Your task to perform on an android device: What's the price of the Samsung TV? Image 0: 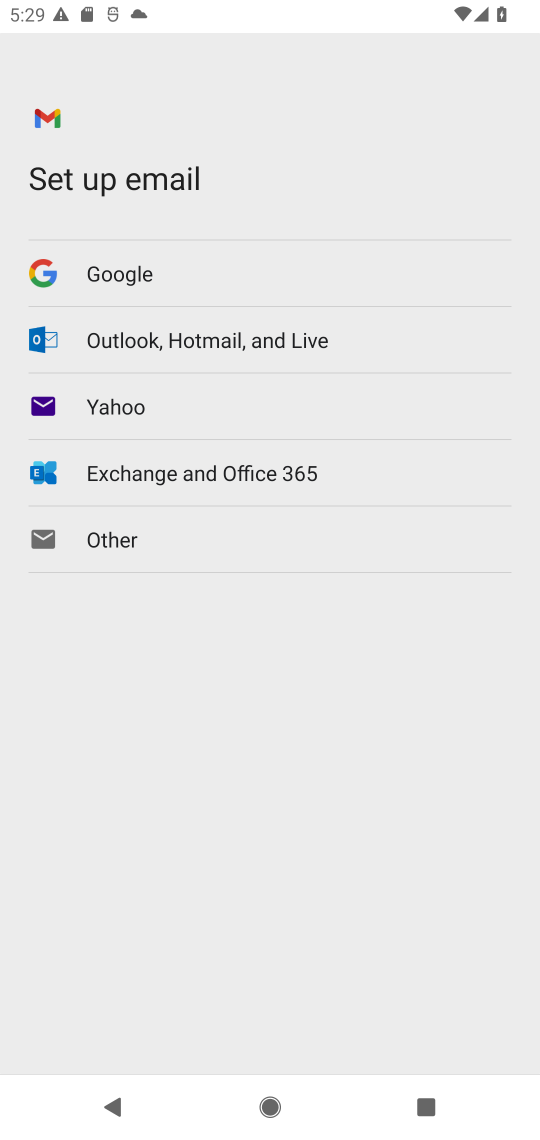
Step 0: press home button
Your task to perform on an android device: What's the price of the Samsung TV? Image 1: 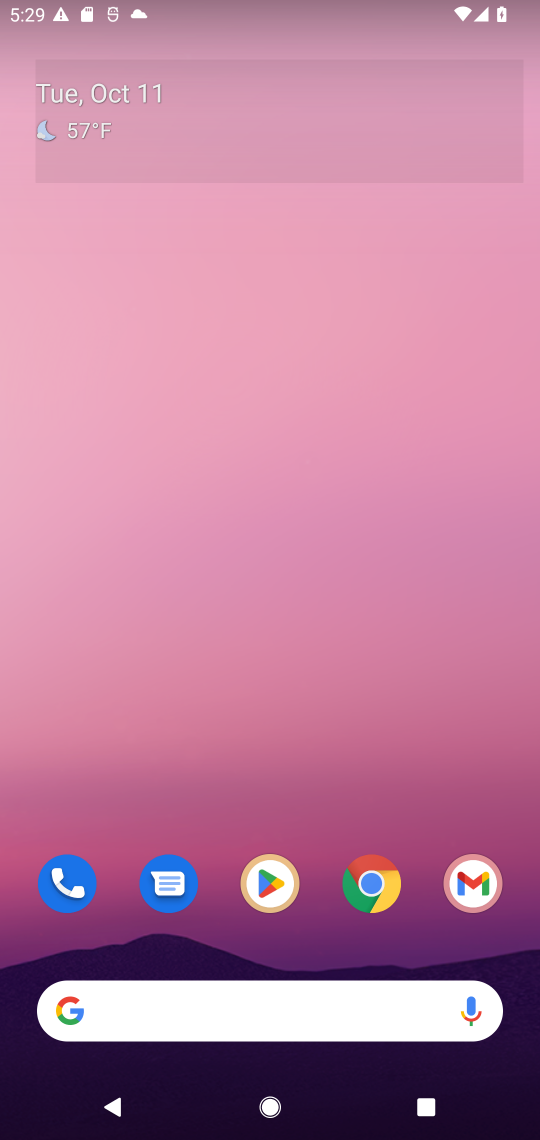
Step 1: drag from (326, 940) to (378, 34)
Your task to perform on an android device: What's the price of the Samsung TV? Image 2: 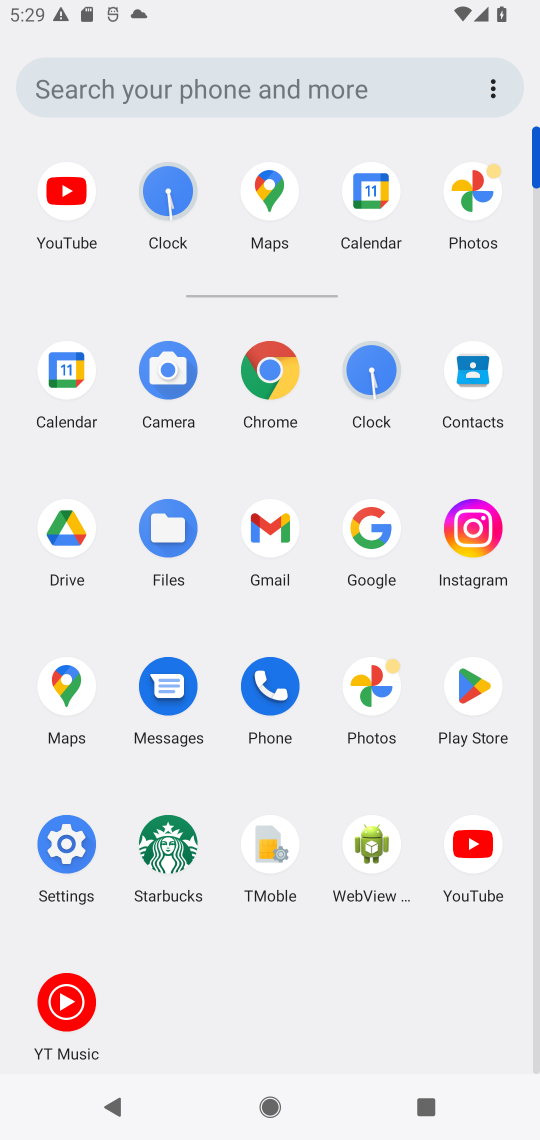
Step 2: click (256, 372)
Your task to perform on an android device: What's the price of the Samsung TV? Image 3: 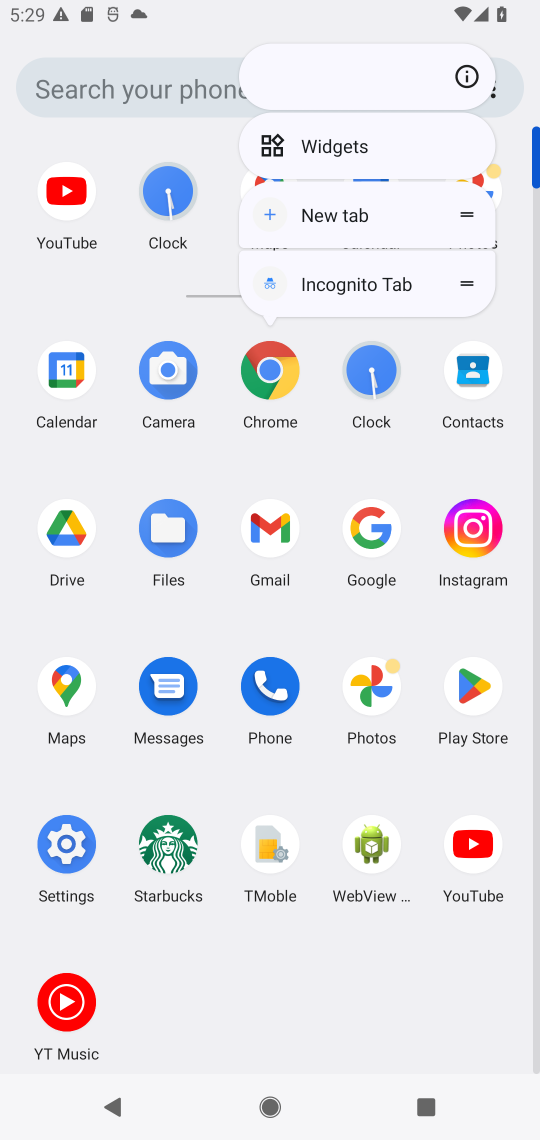
Step 3: click (275, 382)
Your task to perform on an android device: What's the price of the Samsung TV? Image 4: 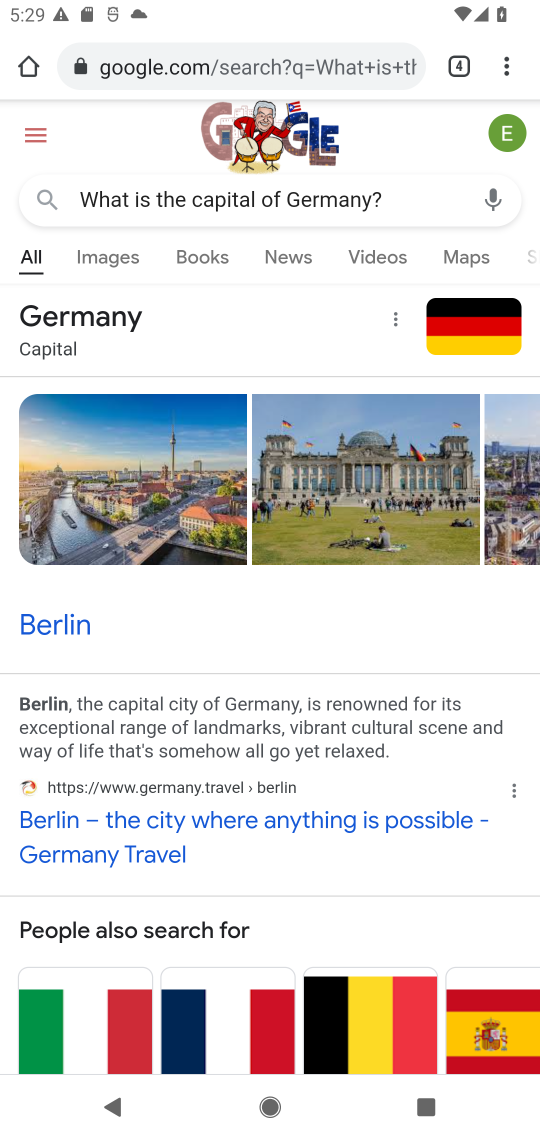
Step 4: click (366, 193)
Your task to perform on an android device: What's the price of the Samsung TV? Image 5: 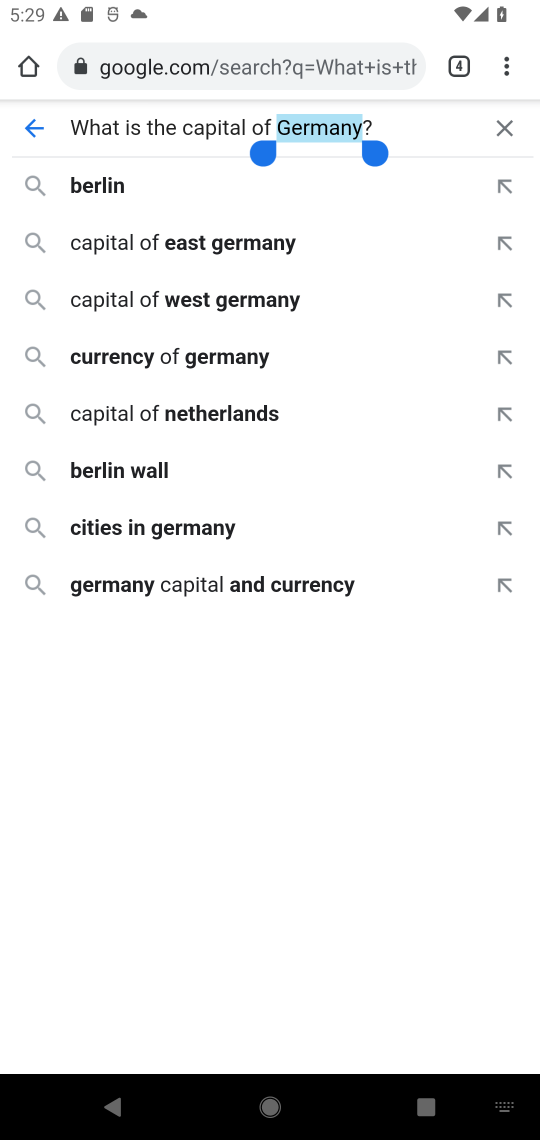
Step 5: click (511, 172)
Your task to perform on an android device: What's the price of the Samsung TV? Image 6: 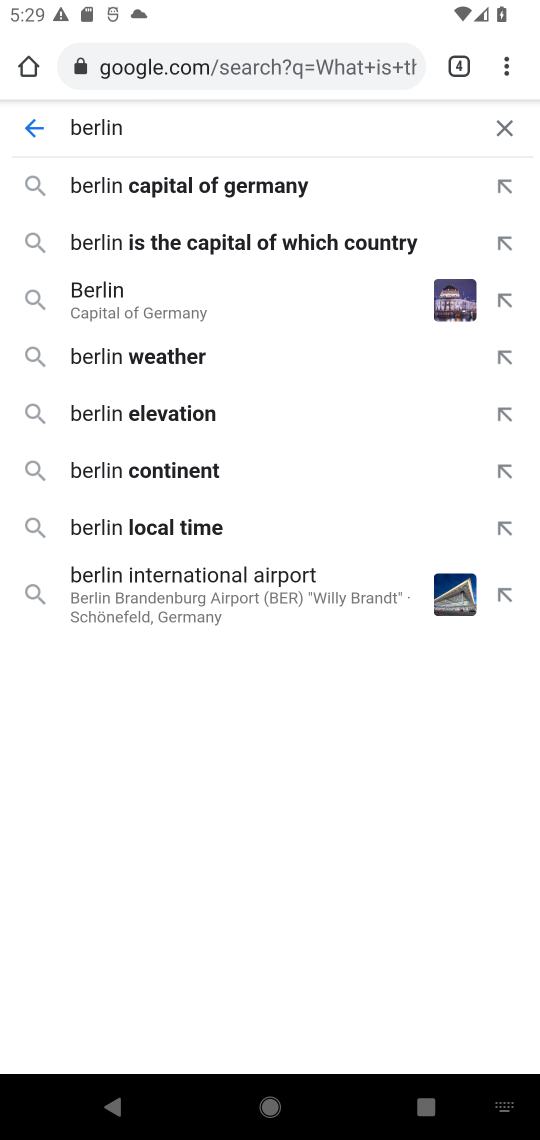
Step 6: click (510, 127)
Your task to perform on an android device: What's the price of the Samsung TV? Image 7: 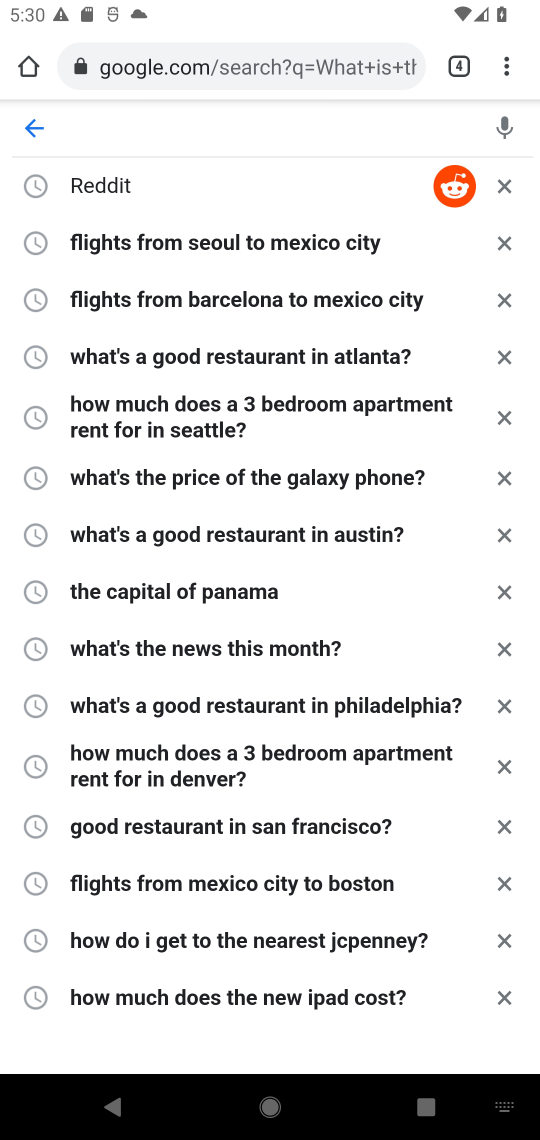
Step 7: type "What's the price of the Samsung TV?"
Your task to perform on an android device: What's the price of the Samsung TV? Image 8: 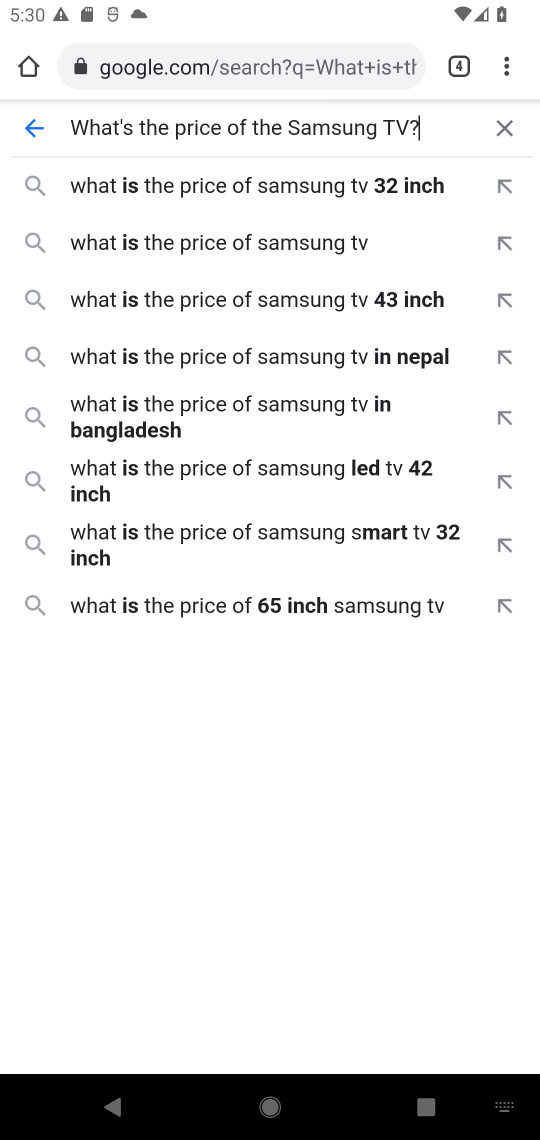
Step 8: press enter
Your task to perform on an android device: What's the price of the Samsung TV? Image 9: 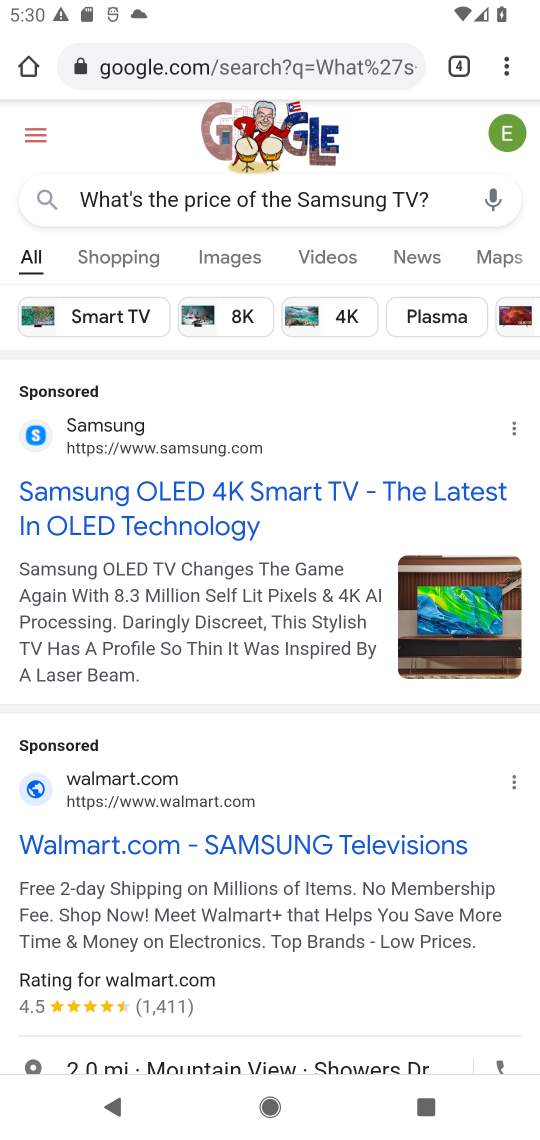
Step 9: task complete